Your task to perform on an android device: turn off notifications settings in the gmail app Image 0: 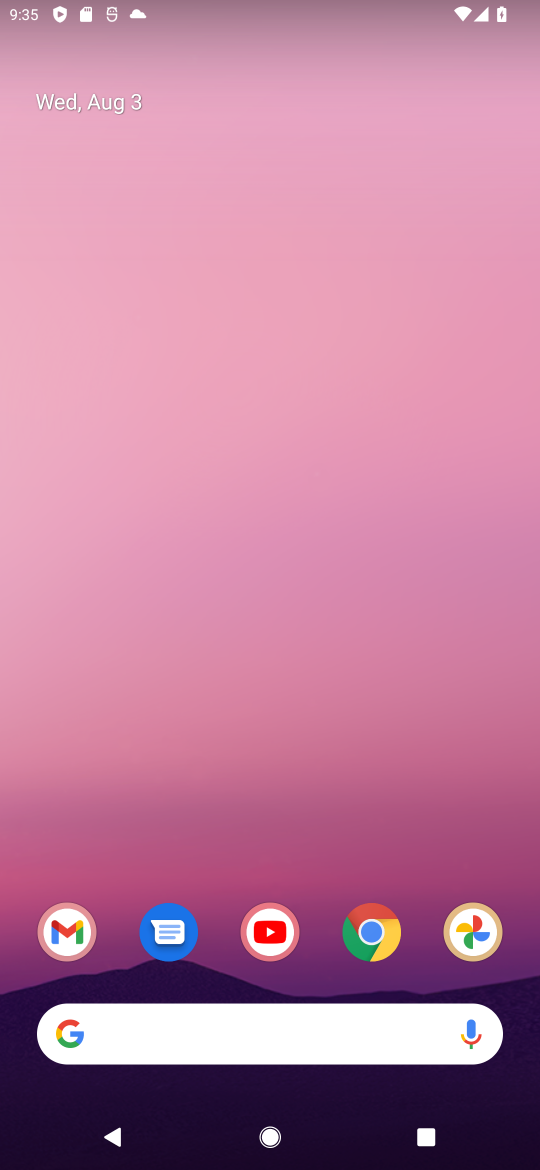
Step 0: drag from (320, 890) to (358, 16)
Your task to perform on an android device: turn off notifications settings in the gmail app Image 1: 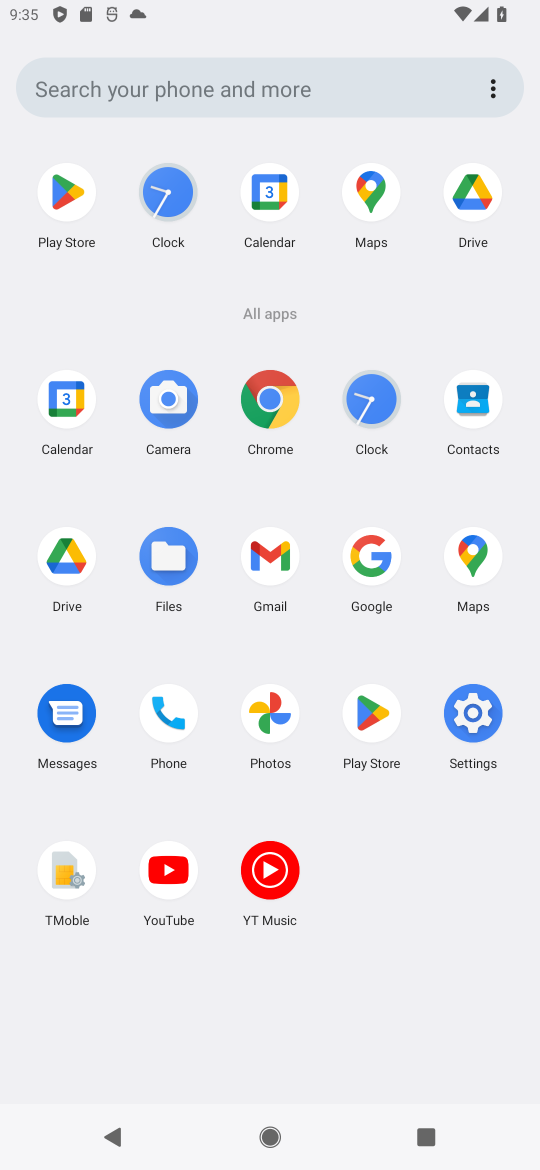
Step 1: click (265, 575)
Your task to perform on an android device: turn off notifications settings in the gmail app Image 2: 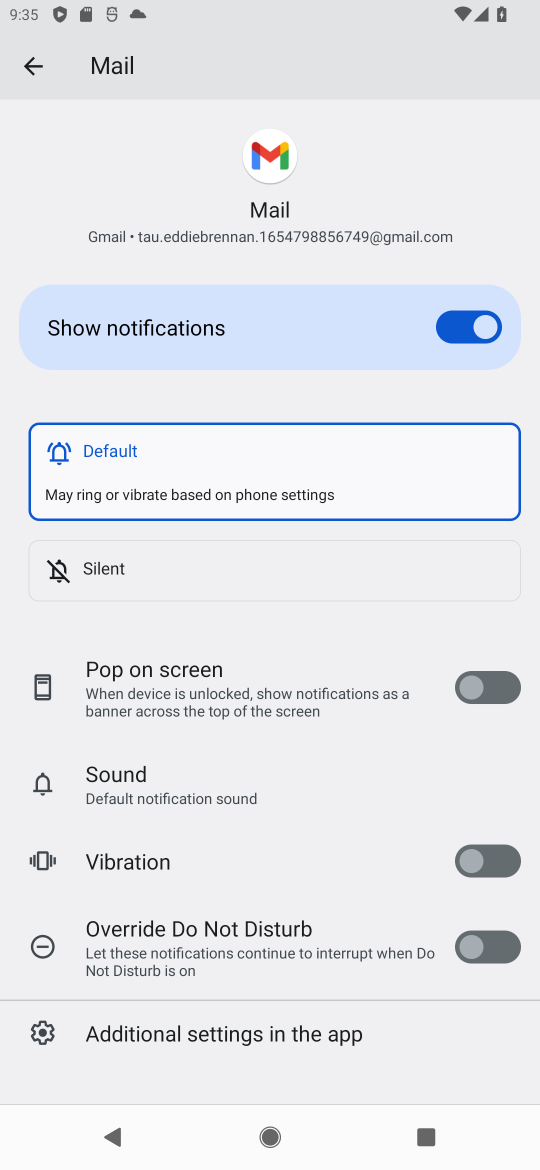
Step 2: task complete